Your task to perform on an android device: Open the downloads Image 0: 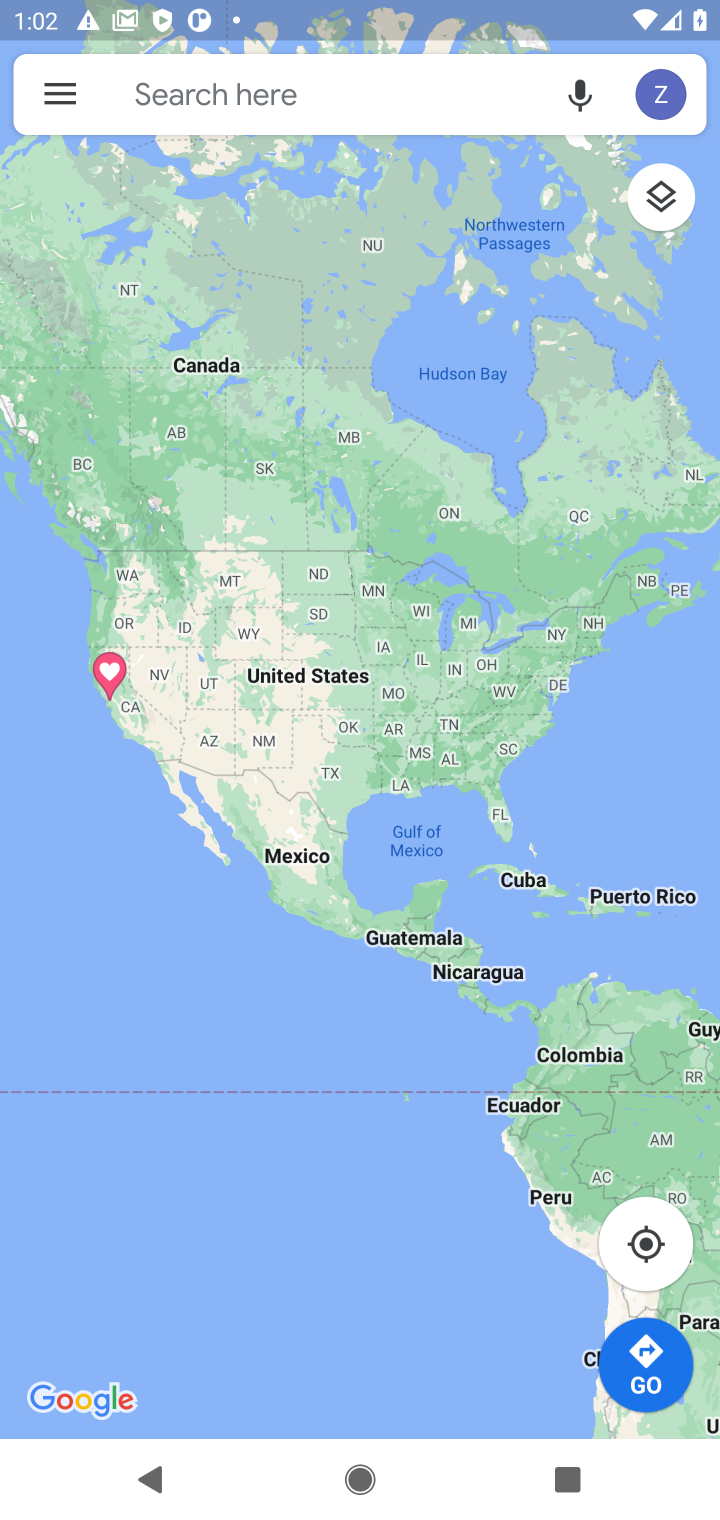
Step 0: press home button
Your task to perform on an android device: Open the downloads Image 1: 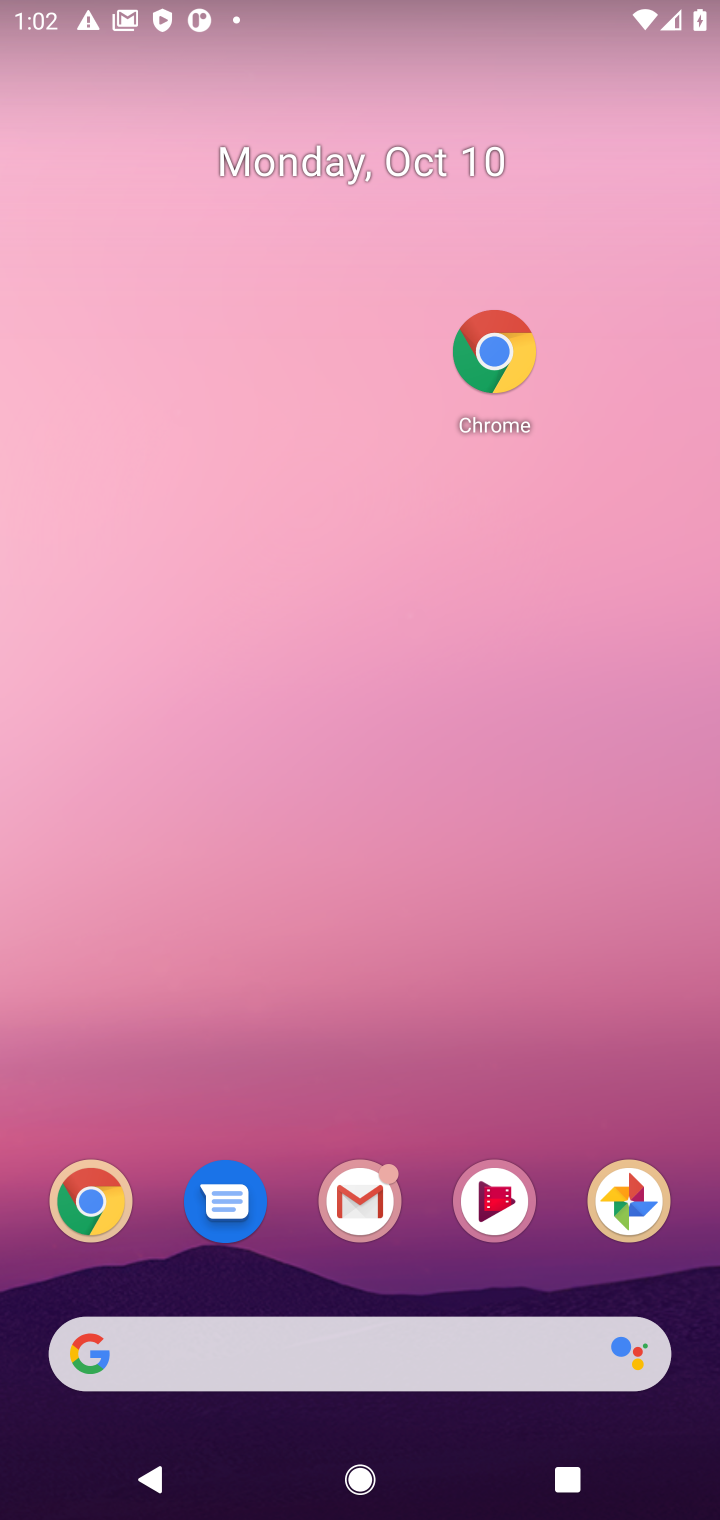
Step 1: drag from (458, 883) to (489, 0)
Your task to perform on an android device: Open the downloads Image 2: 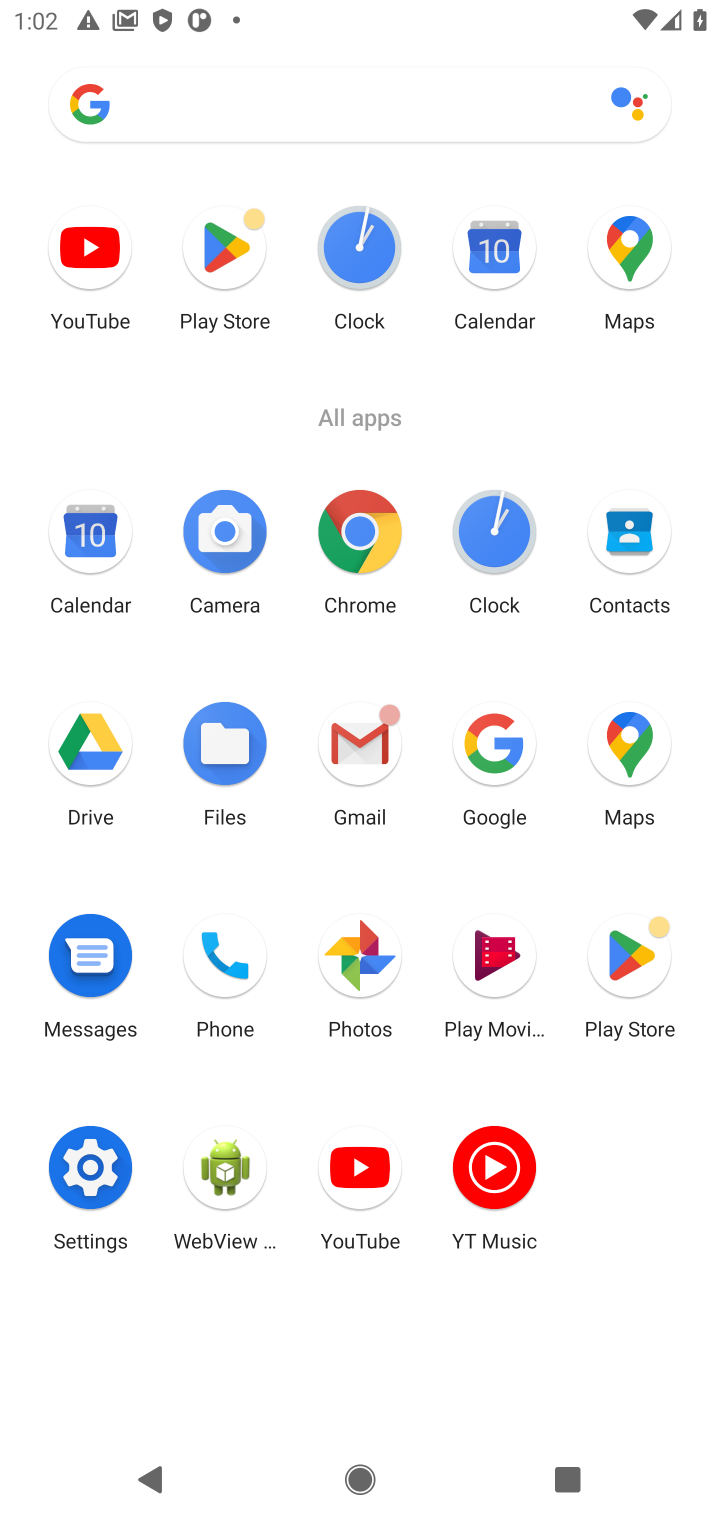
Step 2: click (221, 741)
Your task to perform on an android device: Open the downloads Image 3: 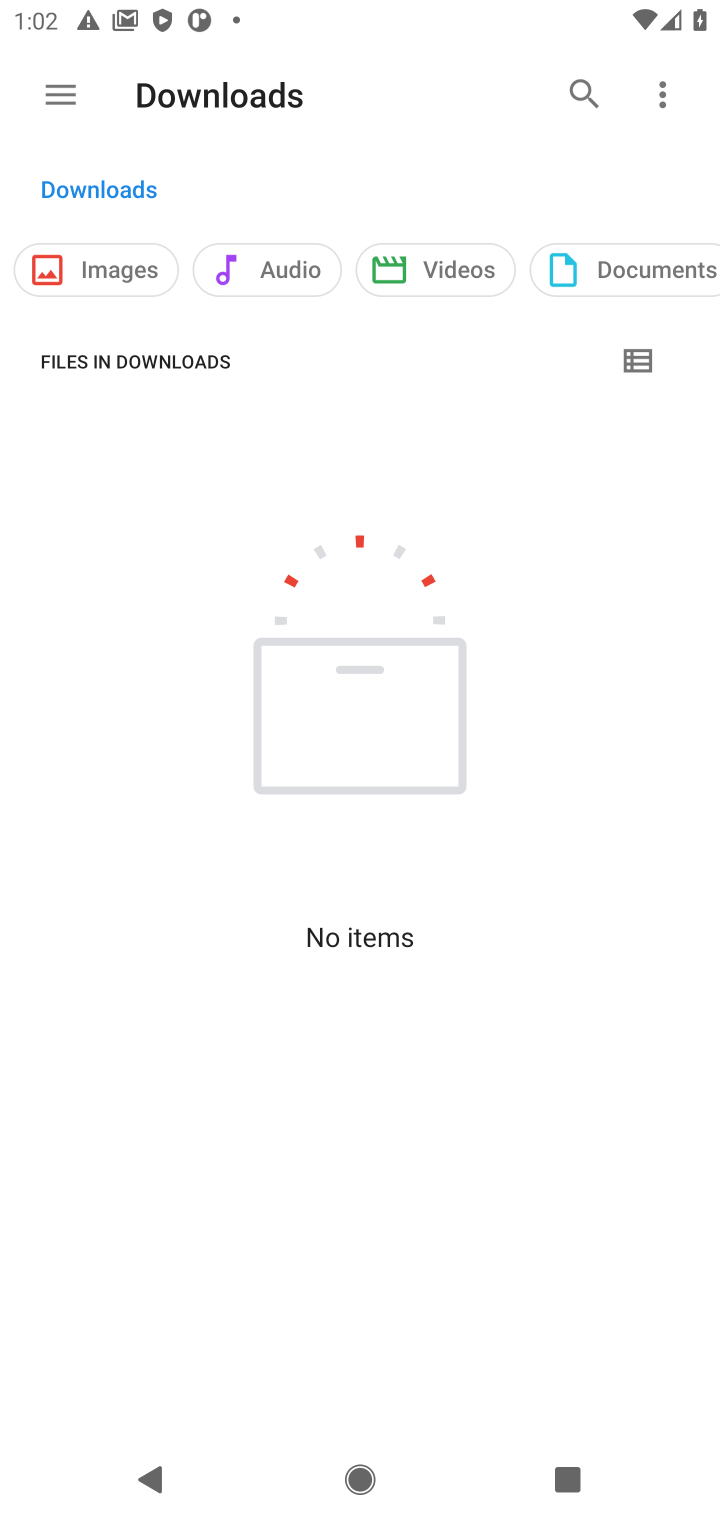
Step 3: task complete